Your task to perform on an android device: open a bookmark in the chrome app Image 0: 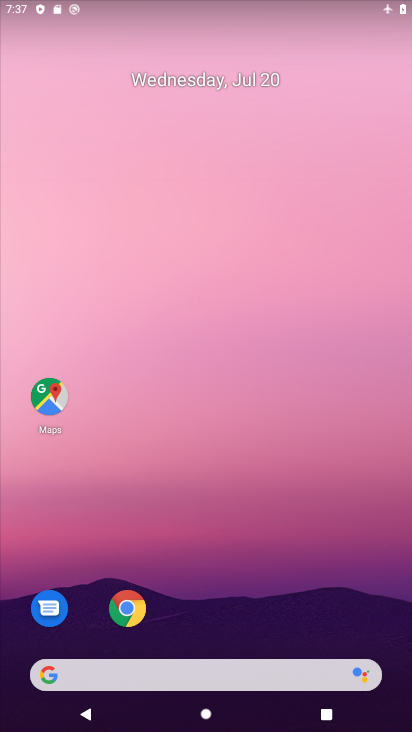
Step 0: drag from (342, 640) to (209, 146)
Your task to perform on an android device: open a bookmark in the chrome app Image 1: 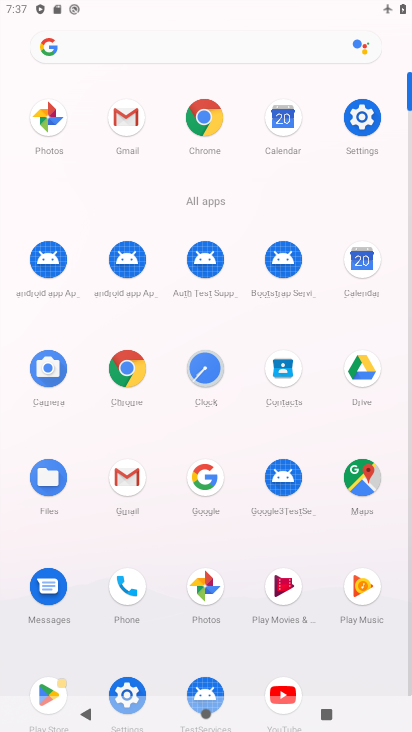
Step 1: click (129, 369)
Your task to perform on an android device: open a bookmark in the chrome app Image 2: 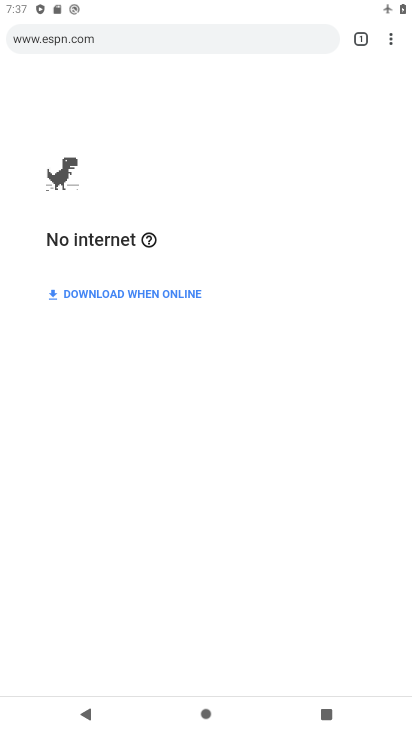
Step 2: task complete